Your task to perform on an android device: Turn off the flashlight Image 0: 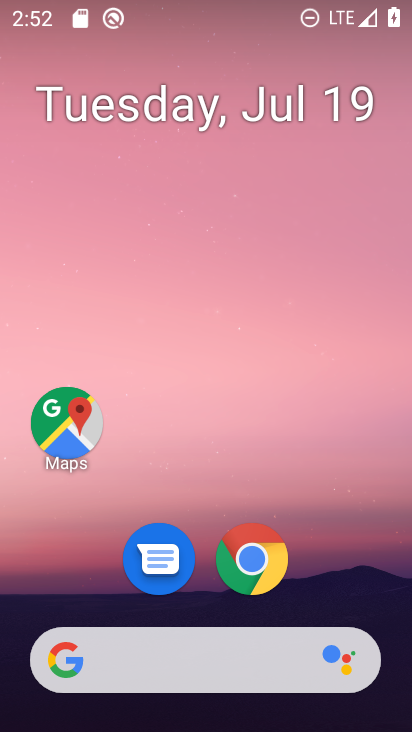
Step 0: drag from (224, 659) to (198, 44)
Your task to perform on an android device: Turn off the flashlight Image 1: 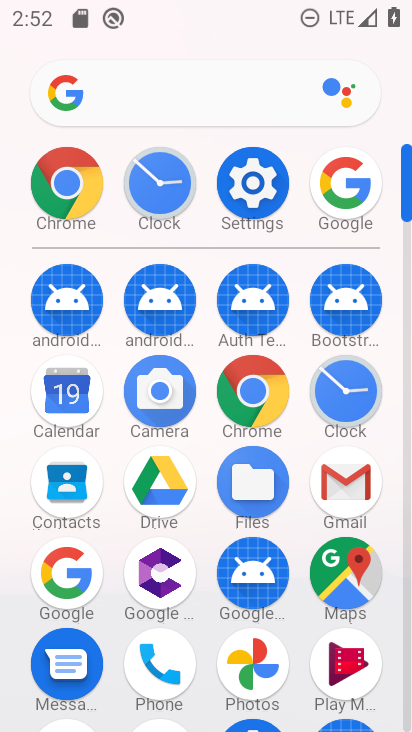
Step 1: task complete